Your task to perform on an android device: set the timer Image 0: 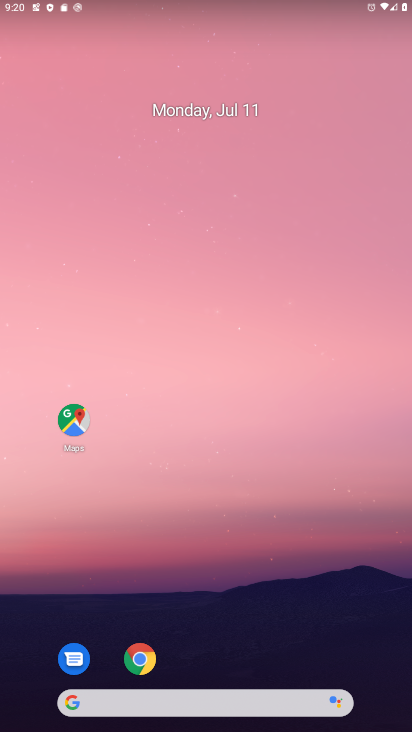
Step 0: drag from (252, 592) to (222, 66)
Your task to perform on an android device: set the timer Image 1: 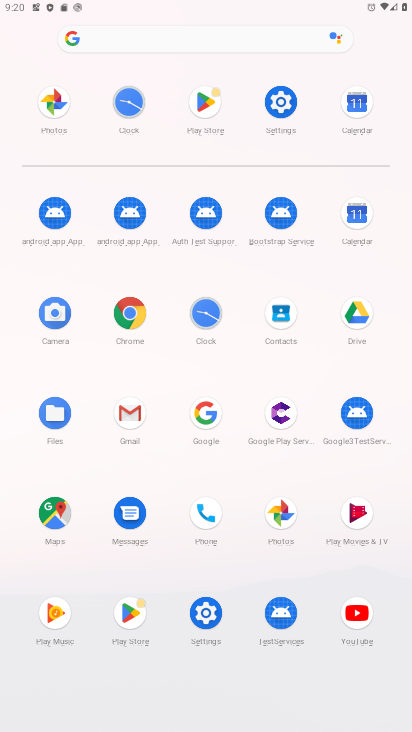
Step 1: click (205, 315)
Your task to perform on an android device: set the timer Image 2: 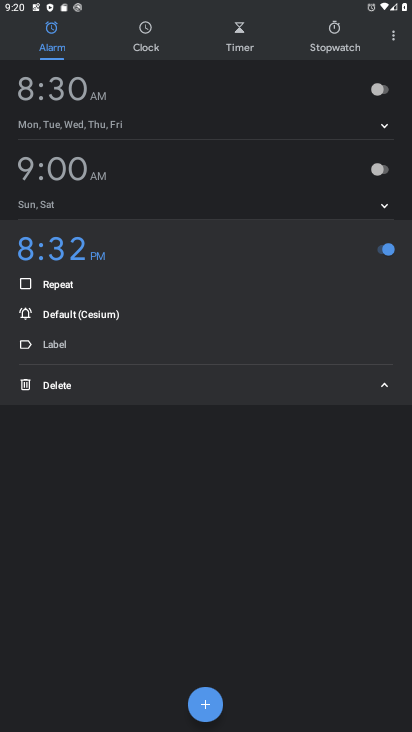
Step 2: click (244, 30)
Your task to perform on an android device: set the timer Image 3: 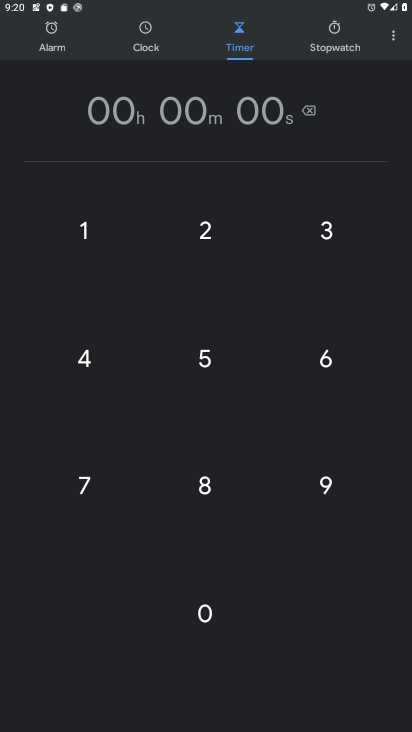
Step 3: click (88, 232)
Your task to perform on an android device: set the timer Image 4: 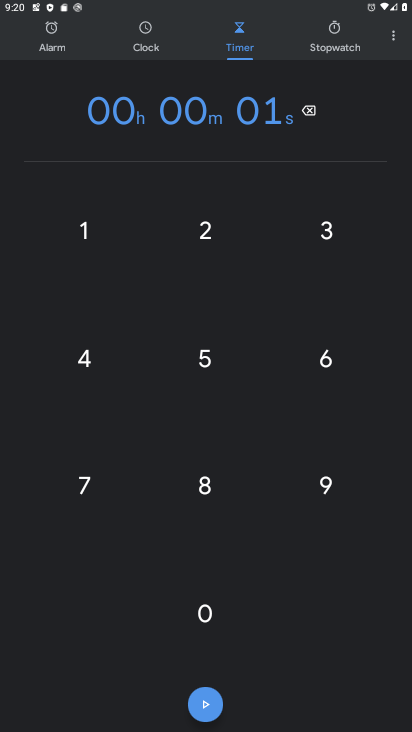
Step 4: click (88, 232)
Your task to perform on an android device: set the timer Image 5: 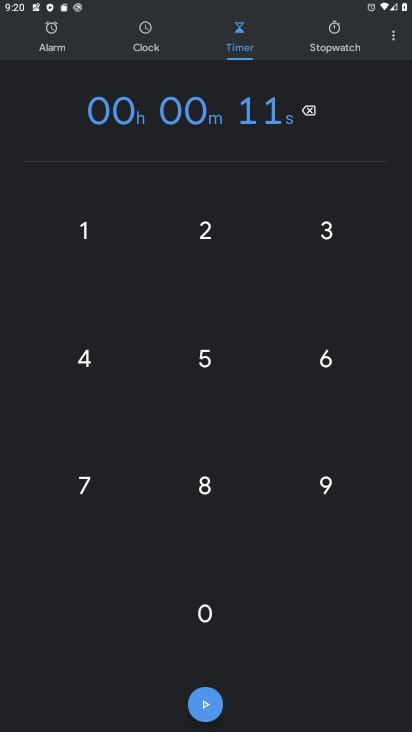
Step 5: click (88, 232)
Your task to perform on an android device: set the timer Image 6: 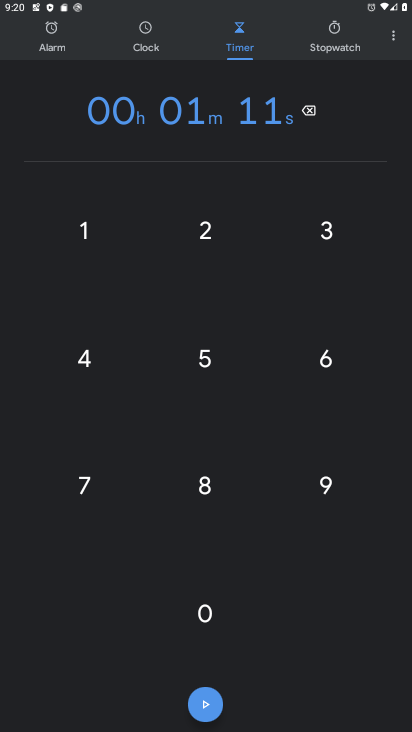
Step 6: click (88, 232)
Your task to perform on an android device: set the timer Image 7: 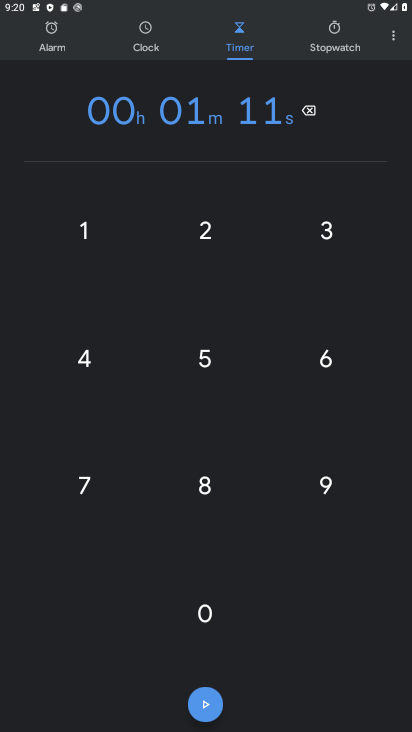
Step 7: click (88, 232)
Your task to perform on an android device: set the timer Image 8: 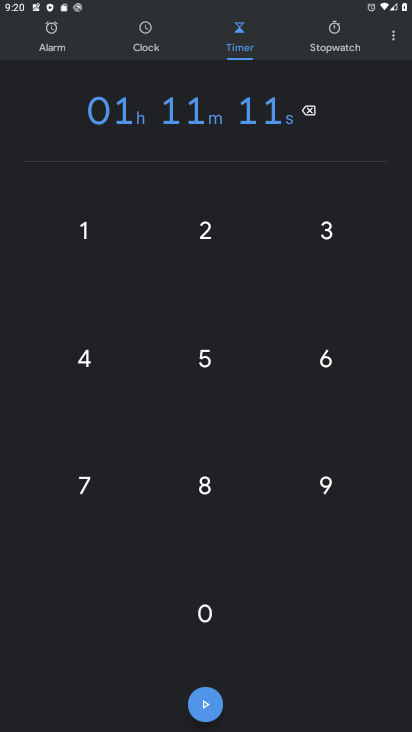
Step 8: click (88, 232)
Your task to perform on an android device: set the timer Image 9: 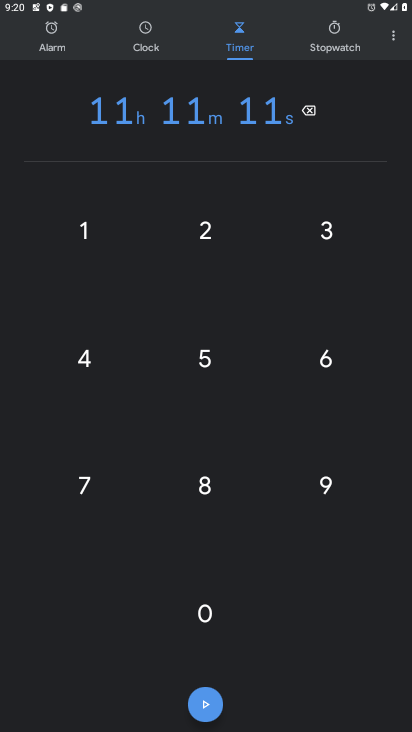
Step 9: task complete